Your task to perform on an android device: install app "Facebook" Image 0: 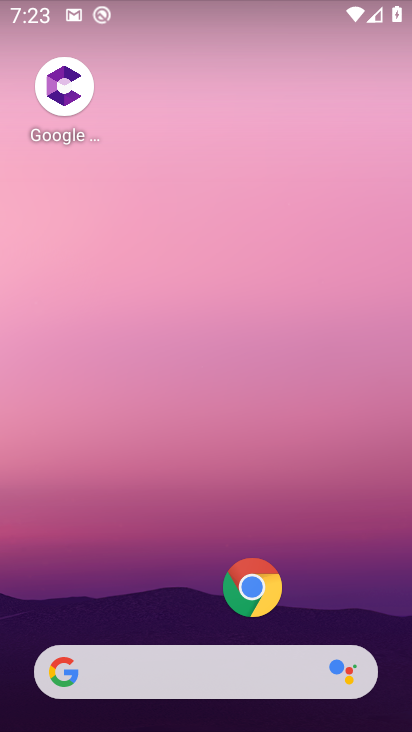
Step 0: drag from (193, 642) to (243, 147)
Your task to perform on an android device: install app "Facebook" Image 1: 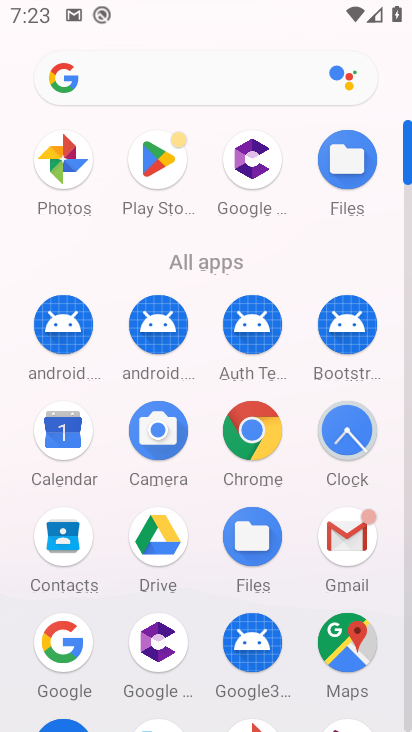
Step 1: click (171, 163)
Your task to perform on an android device: install app "Facebook" Image 2: 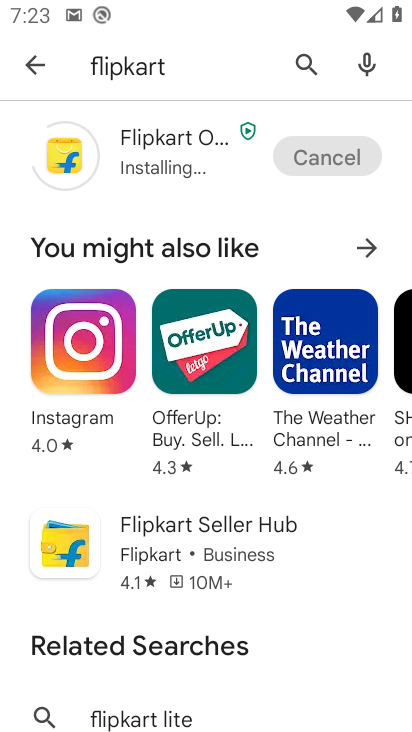
Step 2: click (293, 64)
Your task to perform on an android device: install app "Facebook" Image 3: 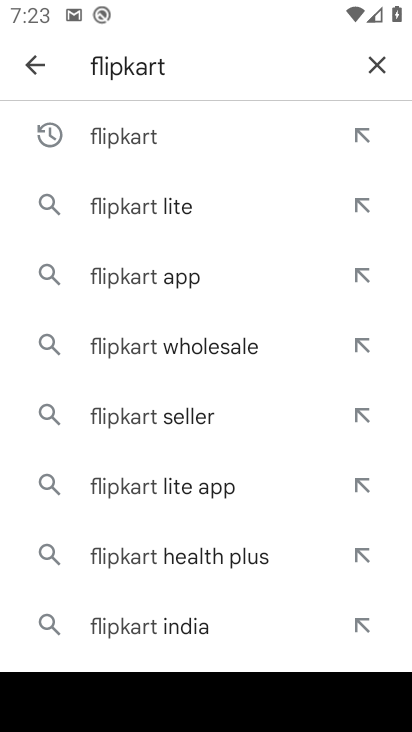
Step 3: click (365, 79)
Your task to perform on an android device: install app "Facebook" Image 4: 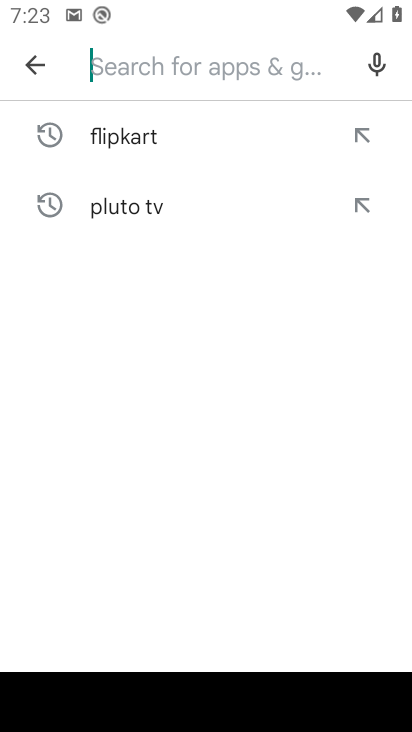
Step 4: type "facebook"
Your task to perform on an android device: install app "Facebook" Image 5: 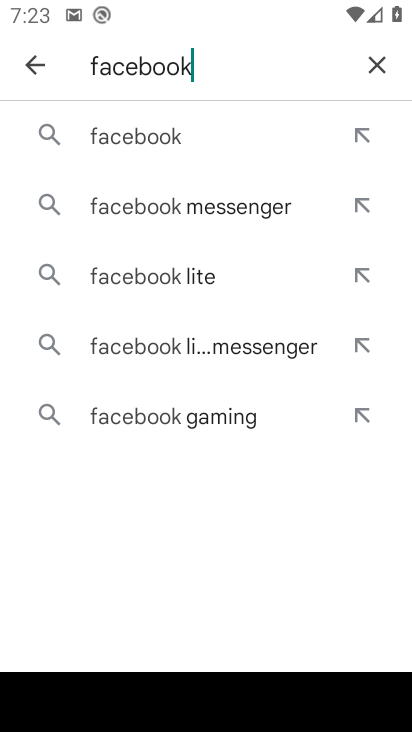
Step 5: click (192, 152)
Your task to perform on an android device: install app "Facebook" Image 6: 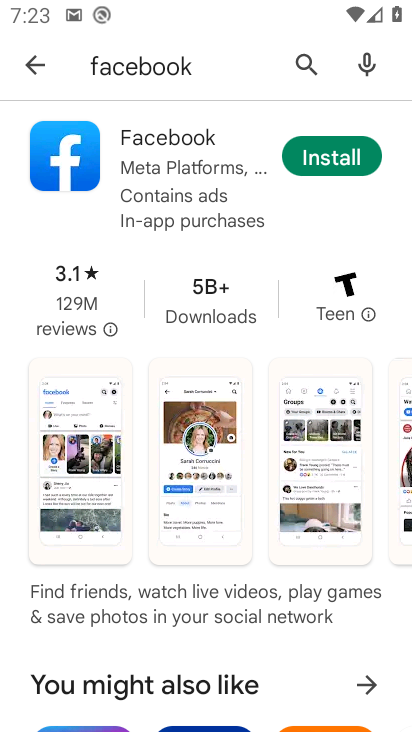
Step 6: click (336, 148)
Your task to perform on an android device: install app "Facebook" Image 7: 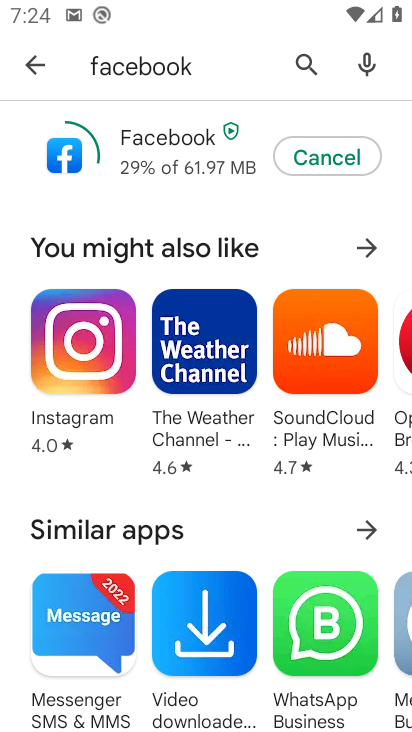
Step 7: task complete